Your task to perform on an android device: Open Amazon Image 0: 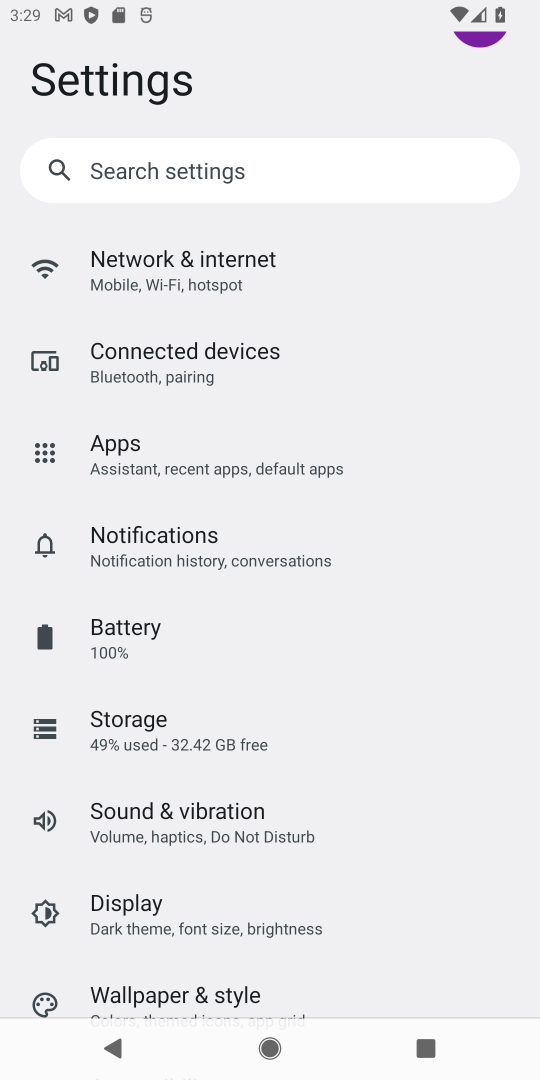
Step 0: press home button
Your task to perform on an android device: Open Amazon Image 1: 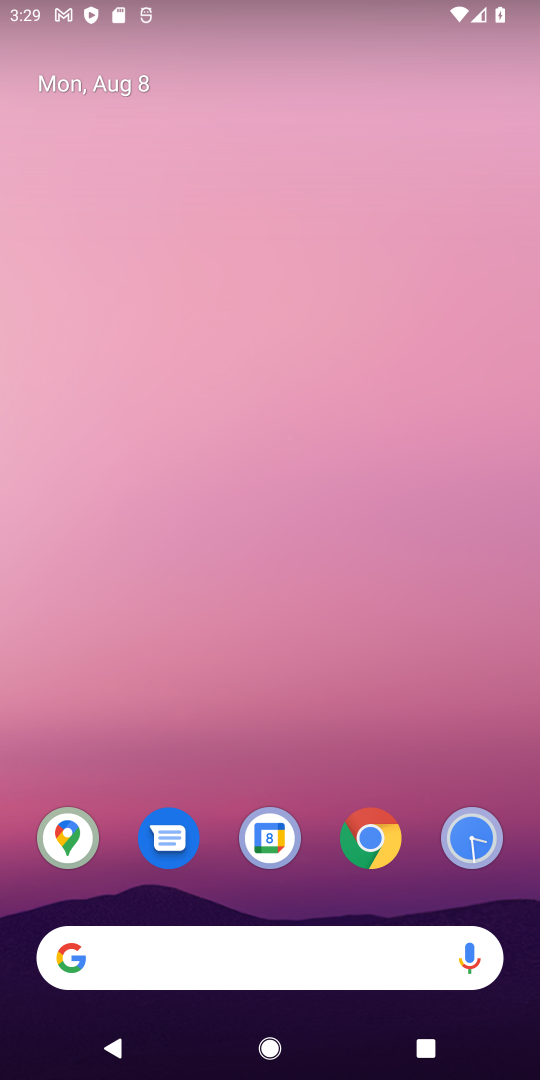
Step 1: click (370, 840)
Your task to perform on an android device: Open Amazon Image 2: 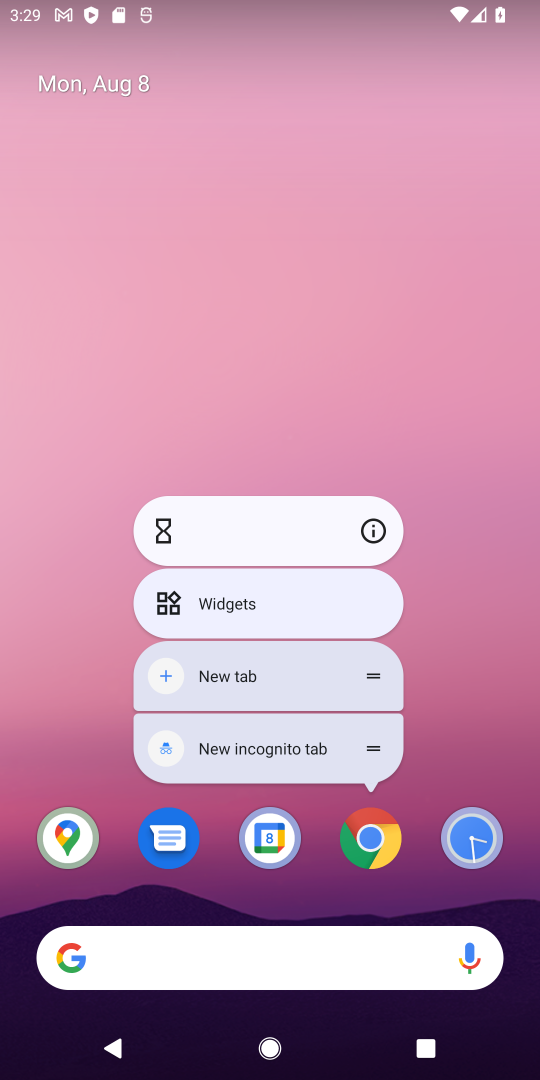
Step 2: click (371, 840)
Your task to perform on an android device: Open Amazon Image 3: 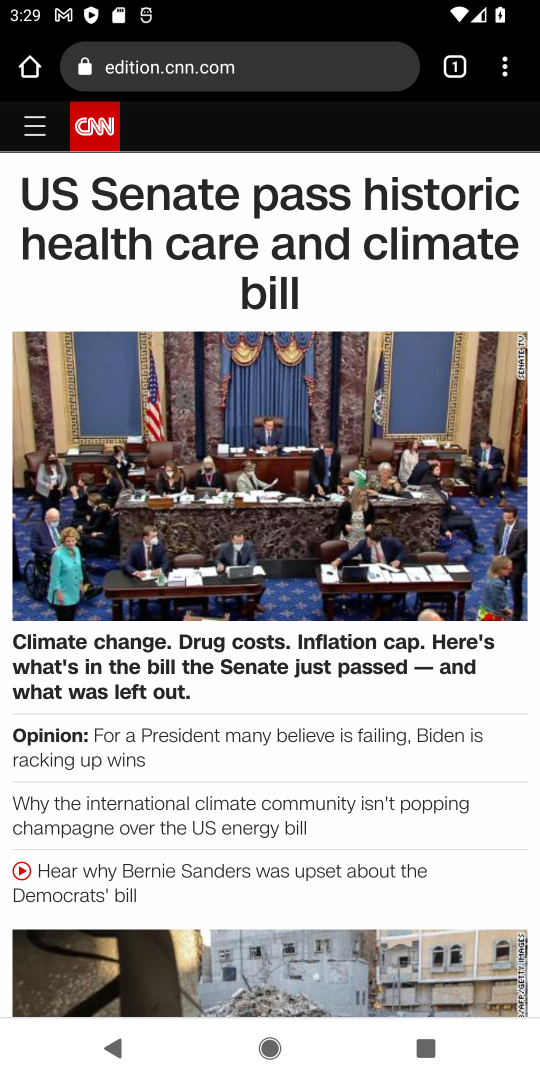
Step 3: click (306, 78)
Your task to perform on an android device: Open Amazon Image 4: 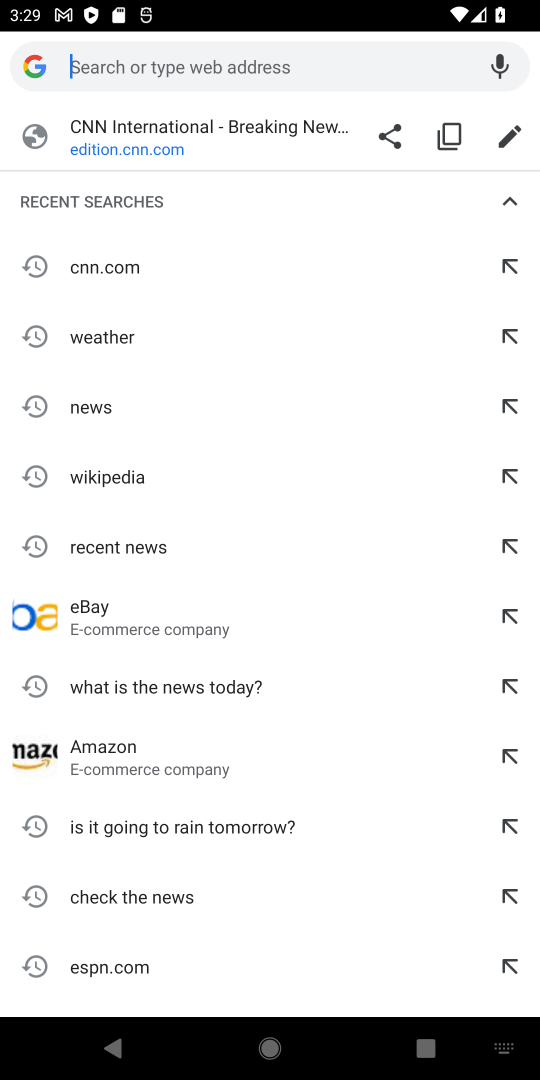
Step 4: type "Amazon"
Your task to perform on an android device: Open Amazon Image 5: 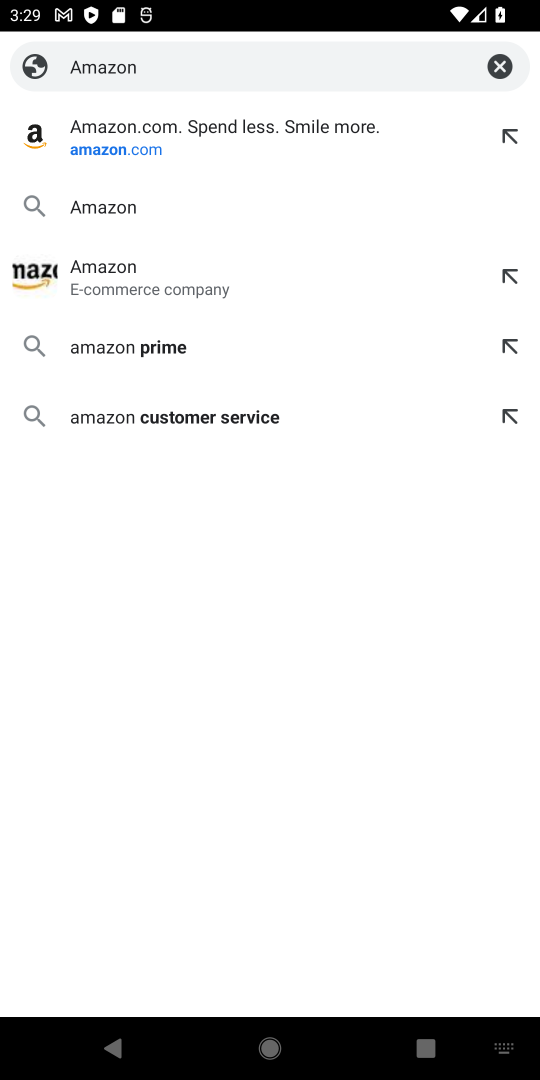
Step 5: click (55, 269)
Your task to perform on an android device: Open Amazon Image 6: 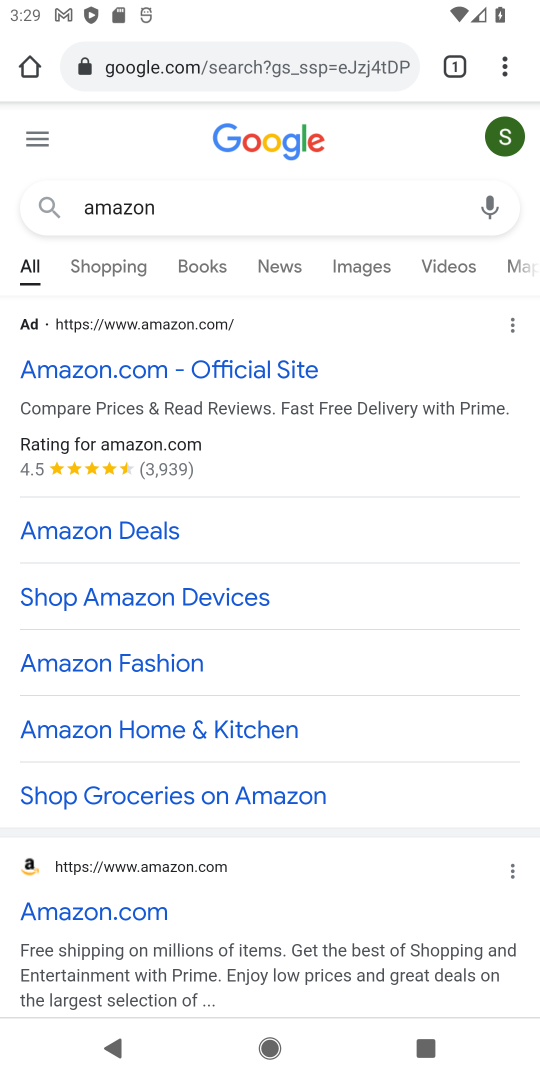
Step 6: click (160, 903)
Your task to perform on an android device: Open Amazon Image 7: 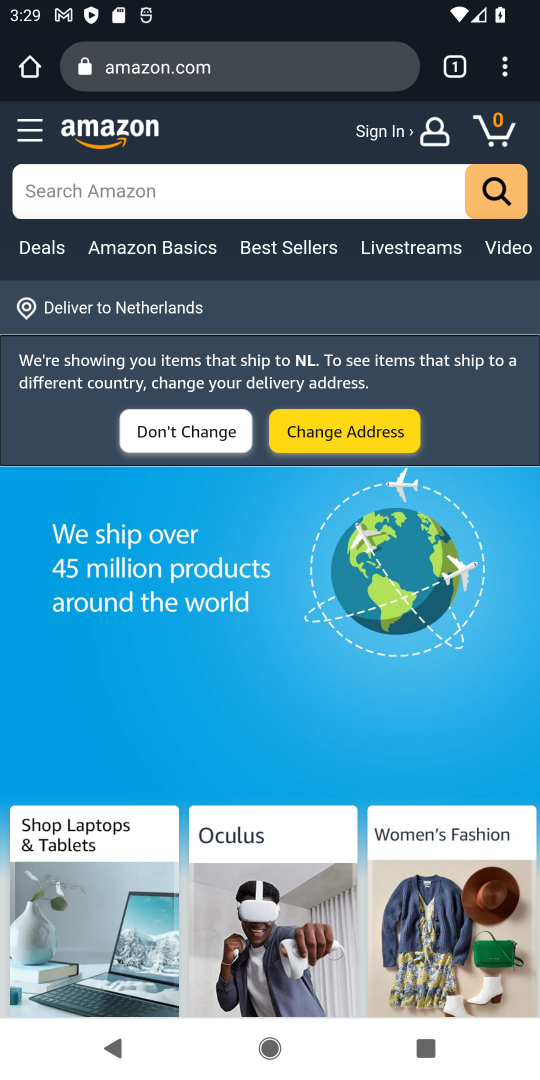
Step 7: task complete